Your task to perform on an android device: empty trash in the gmail app Image 0: 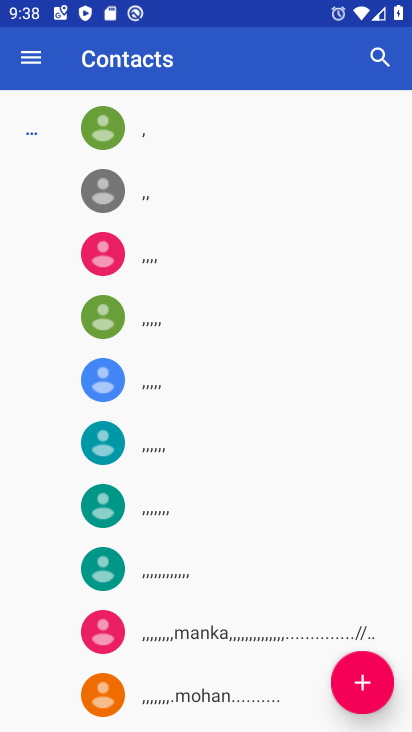
Step 0: drag from (229, 623) to (329, 276)
Your task to perform on an android device: empty trash in the gmail app Image 1: 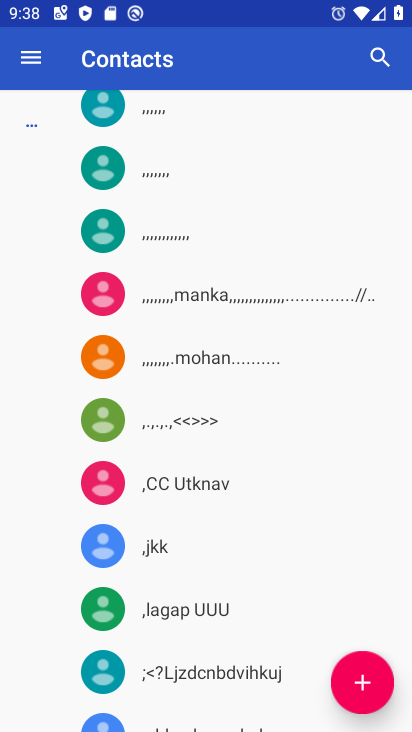
Step 1: drag from (196, 633) to (251, 121)
Your task to perform on an android device: empty trash in the gmail app Image 2: 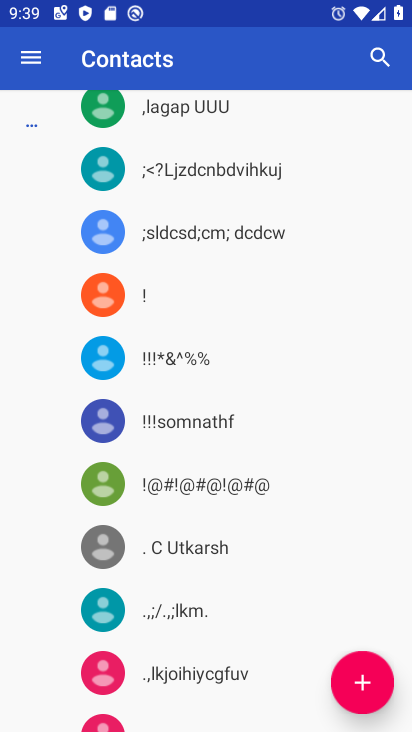
Step 2: drag from (255, 284) to (319, 686)
Your task to perform on an android device: empty trash in the gmail app Image 3: 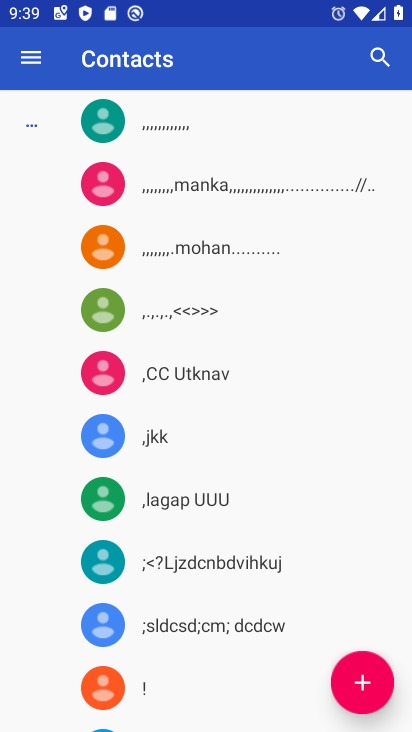
Step 3: press home button
Your task to perform on an android device: empty trash in the gmail app Image 4: 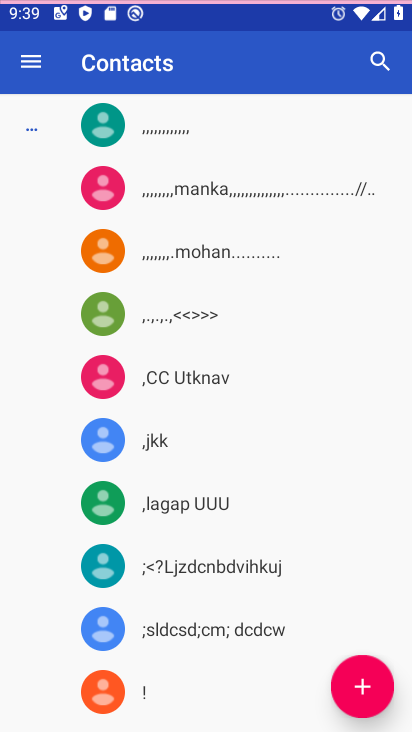
Step 4: drag from (182, 583) to (303, 0)
Your task to perform on an android device: empty trash in the gmail app Image 5: 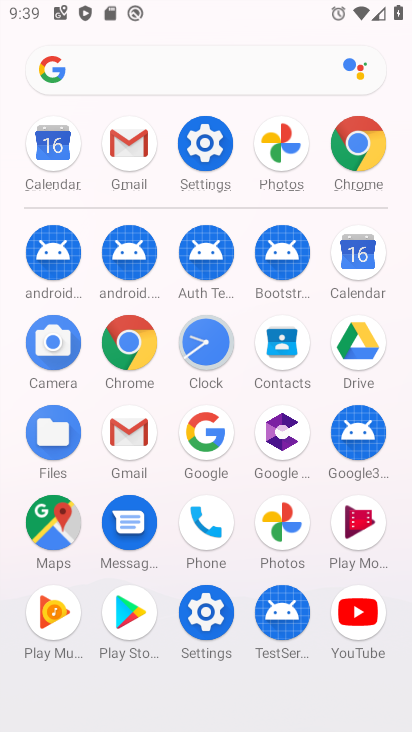
Step 5: click (131, 433)
Your task to perform on an android device: empty trash in the gmail app Image 6: 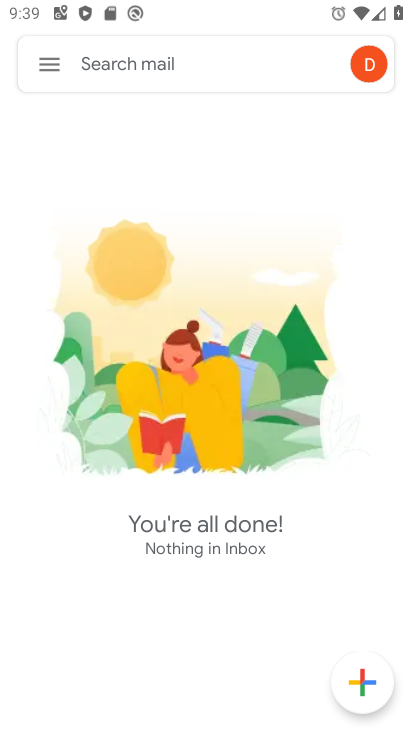
Step 6: click (58, 61)
Your task to perform on an android device: empty trash in the gmail app Image 7: 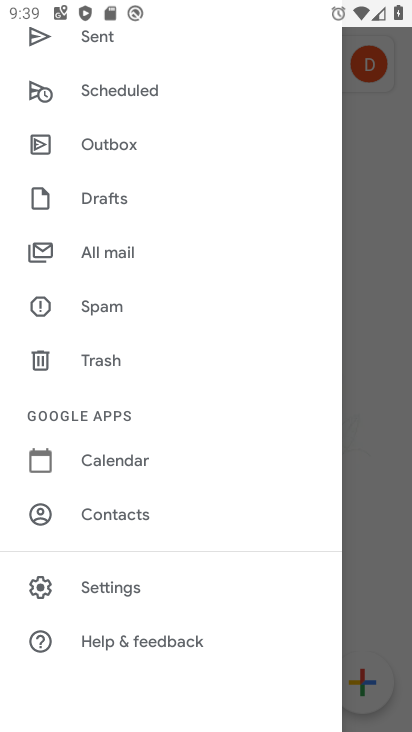
Step 7: click (97, 345)
Your task to perform on an android device: empty trash in the gmail app Image 8: 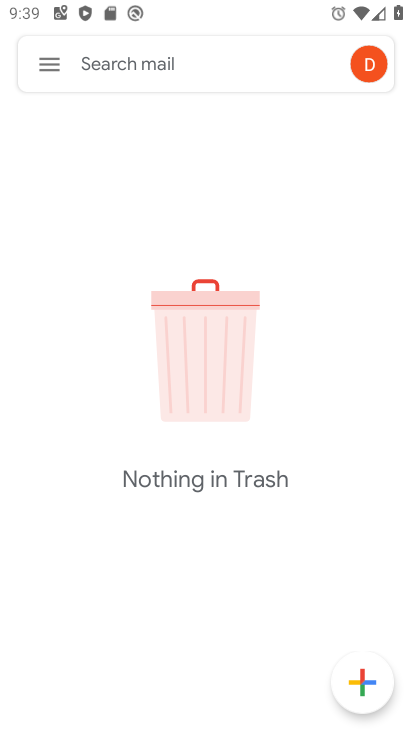
Step 8: drag from (286, 542) to (308, 201)
Your task to perform on an android device: empty trash in the gmail app Image 9: 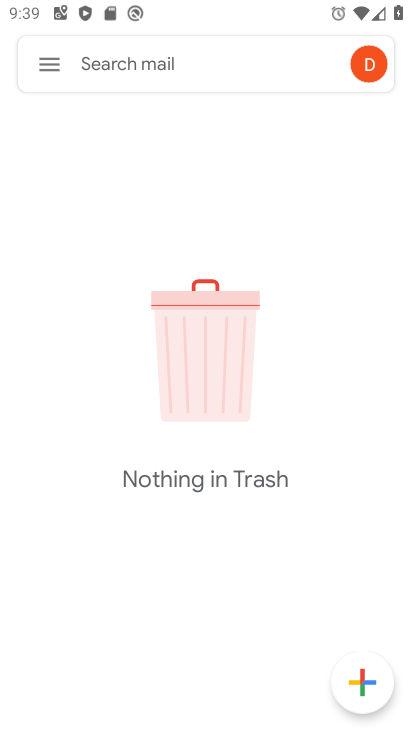
Step 9: click (42, 82)
Your task to perform on an android device: empty trash in the gmail app Image 10: 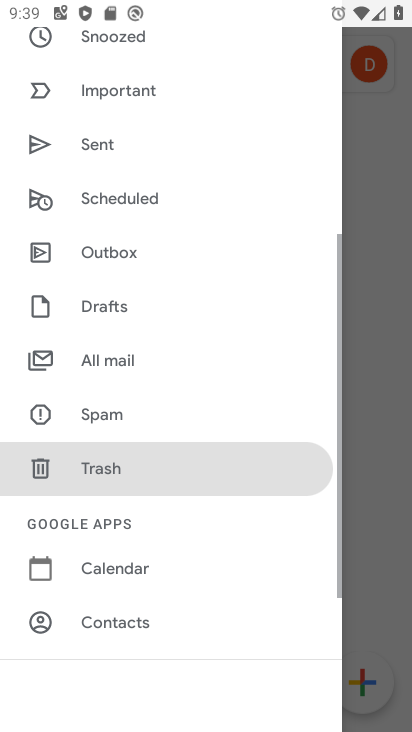
Step 10: click (134, 478)
Your task to perform on an android device: empty trash in the gmail app Image 11: 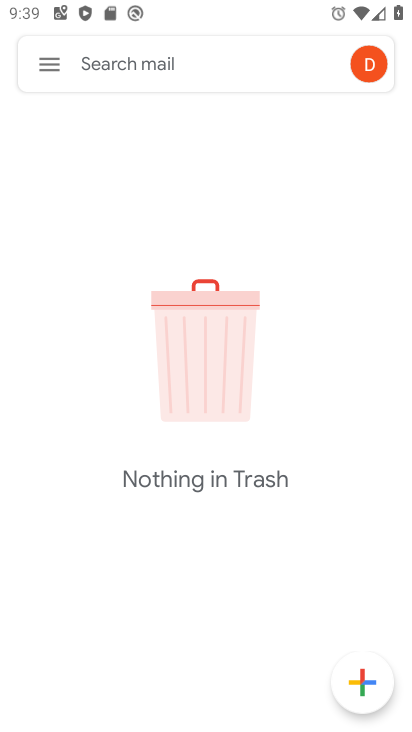
Step 11: task complete